Your task to perform on an android device: delete browsing data in the chrome app Image 0: 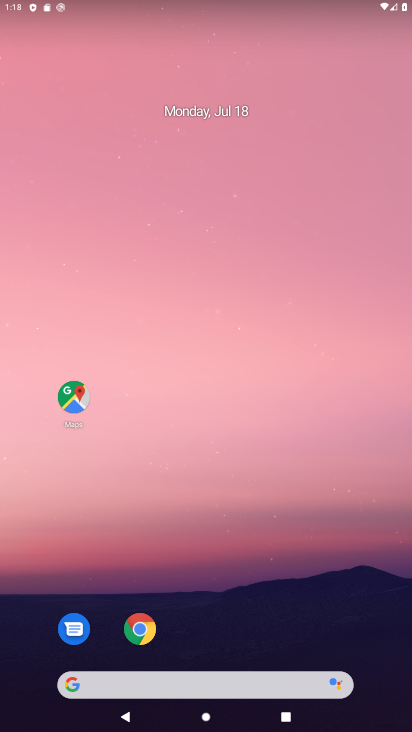
Step 0: press home button
Your task to perform on an android device: delete browsing data in the chrome app Image 1: 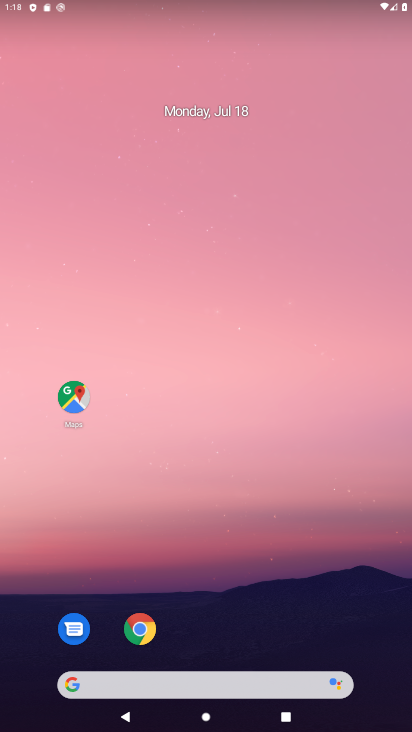
Step 1: drag from (213, 654) to (212, 13)
Your task to perform on an android device: delete browsing data in the chrome app Image 2: 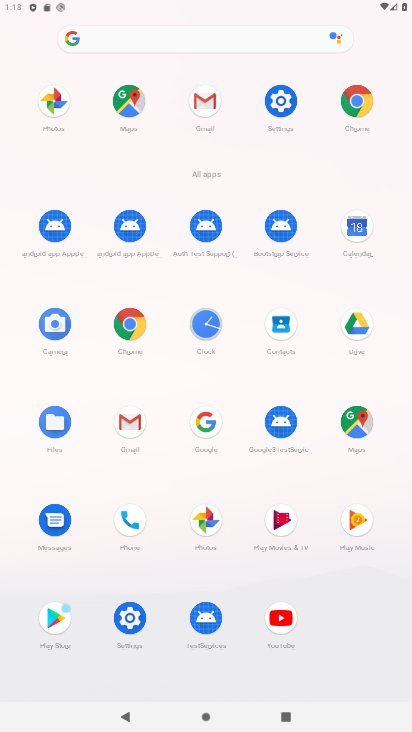
Step 2: click (125, 315)
Your task to perform on an android device: delete browsing data in the chrome app Image 3: 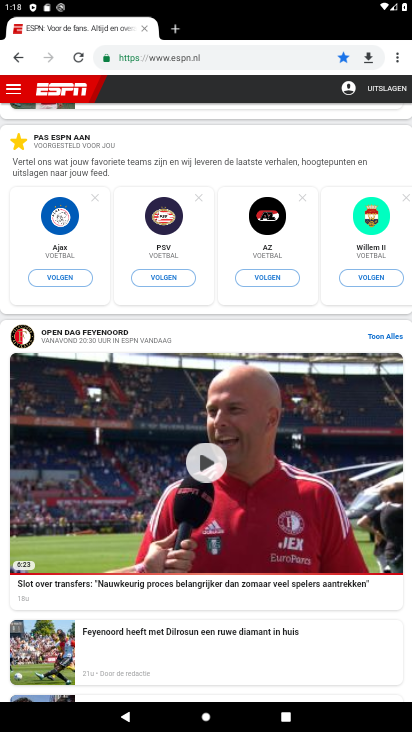
Step 3: click (176, 26)
Your task to perform on an android device: delete browsing data in the chrome app Image 4: 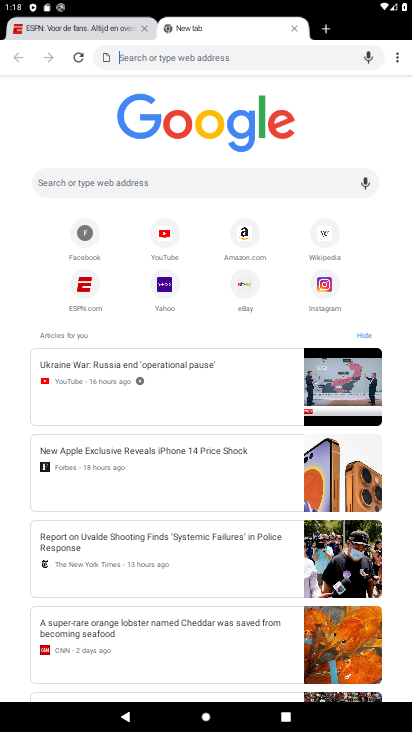
Step 4: click (400, 55)
Your task to perform on an android device: delete browsing data in the chrome app Image 5: 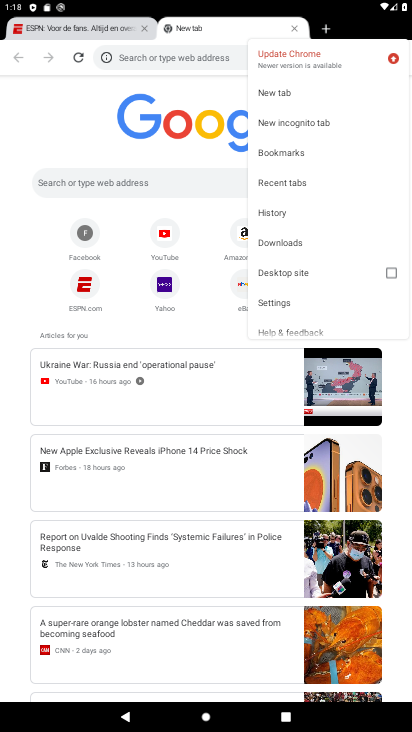
Step 5: click (292, 210)
Your task to perform on an android device: delete browsing data in the chrome app Image 6: 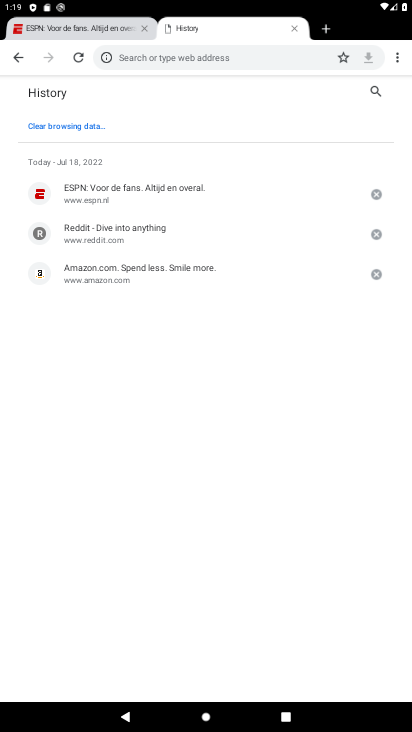
Step 6: click (61, 123)
Your task to perform on an android device: delete browsing data in the chrome app Image 7: 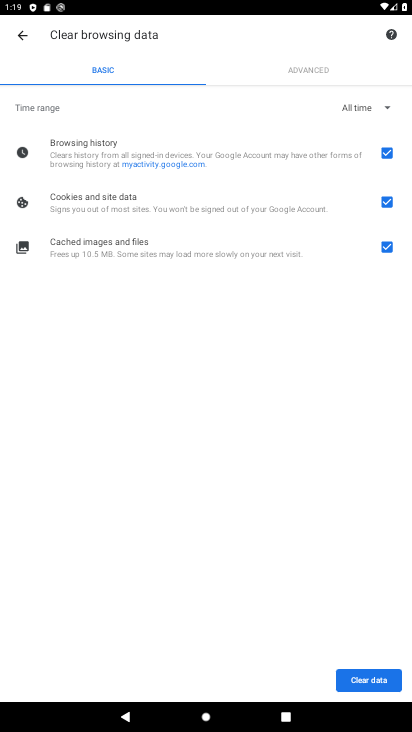
Step 7: click (389, 146)
Your task to perform on an android device: delete browsing data in the chrome app Image 8: 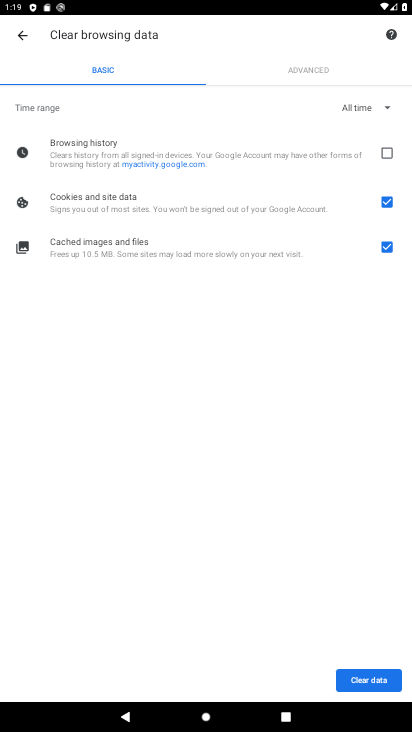
Step 8: click (384, 248)
Your task to perform on an android device: delete browsing data in the chrome app Image 9: 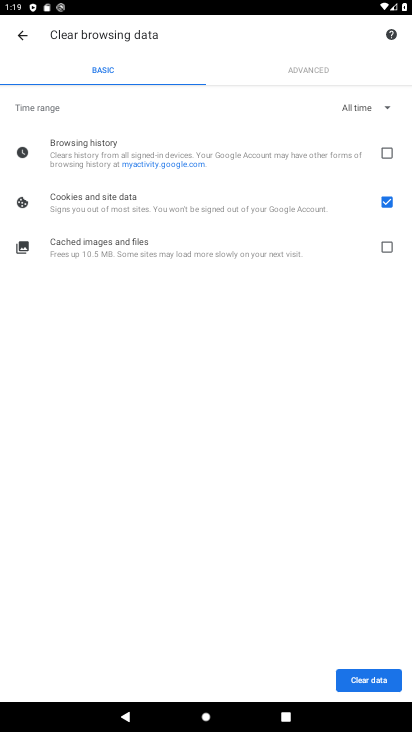
Step 9: click (386, 146)
Your task to perform on an android device: delete browsing data in the chrome app Image 10: 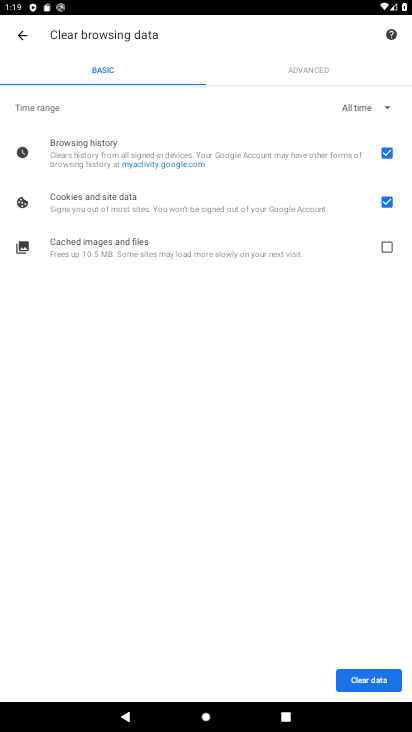
Step 10: click (377, 203)
Your task to perform on an android device: delete browsing data in the chrome app Image 11: 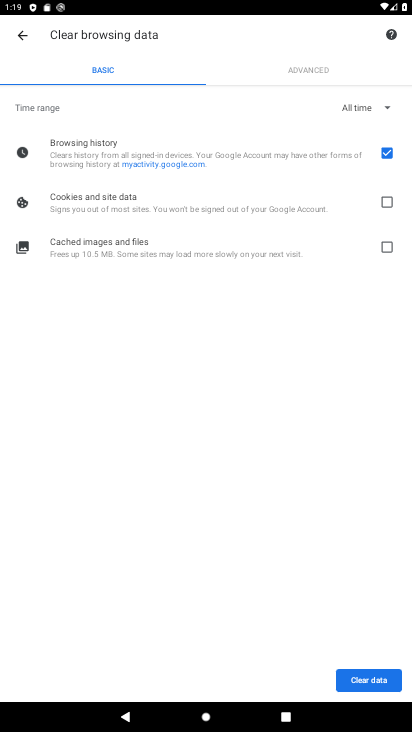
Step 11: click (375, 675)
Your task to perform on an android device: delete browsing data in the chrome app Image 12: 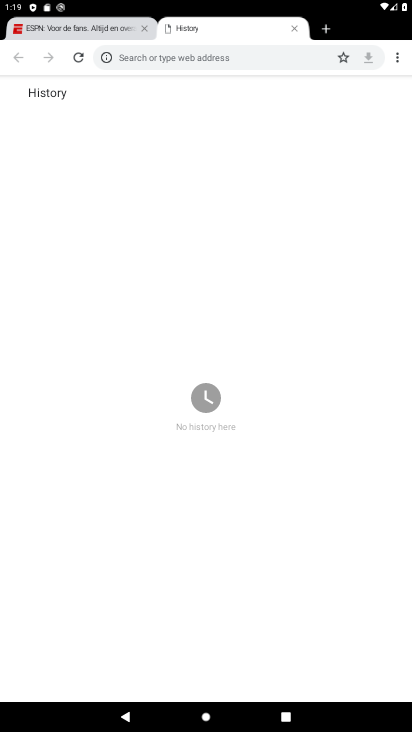
Step 12: task complete